Your task to perform on an android device: turn off location Image 0: 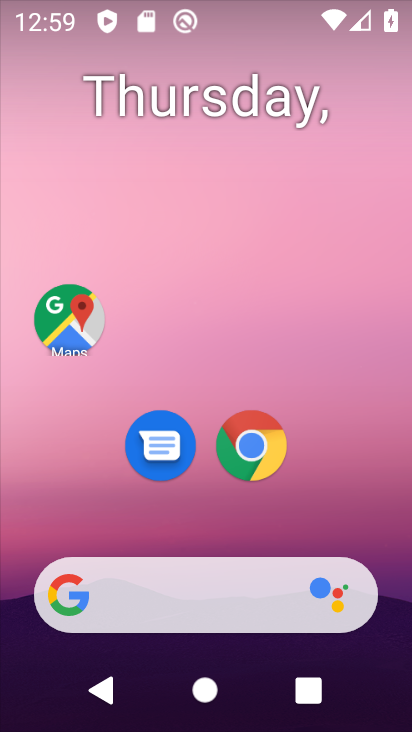
Step 0: drag from (221, 249) to (262, 157)
Your task to perform on an android device: turn off location Image 1: 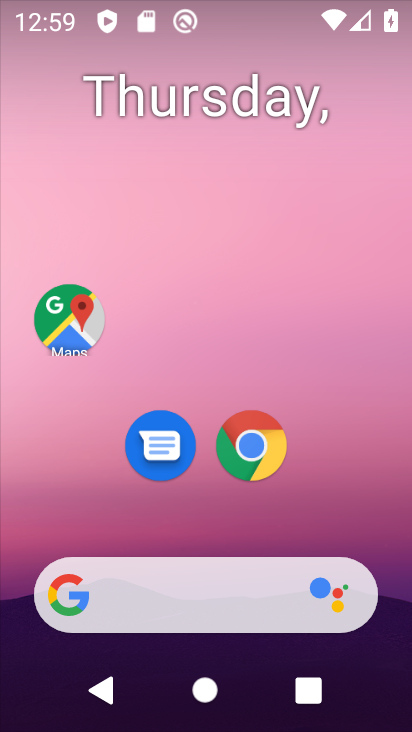
Step 1: drag from (25, 634) to (213, 251)
Your task to perform on an android device: turn off location Image 2: 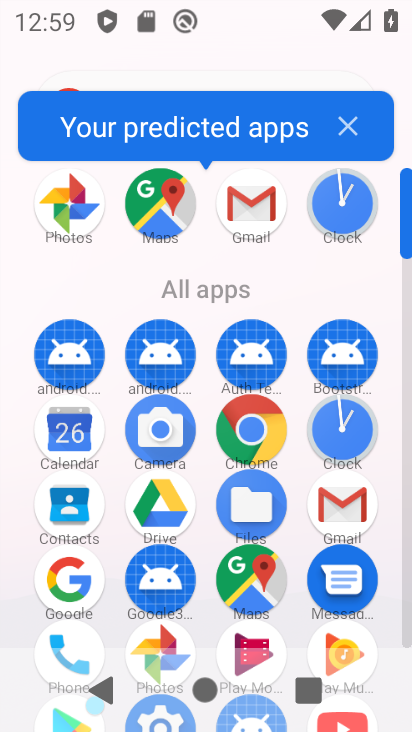
Step 2: drag from (16, 516) to (186, 182)
Your task to perform on an android device: turn off location Image 3: 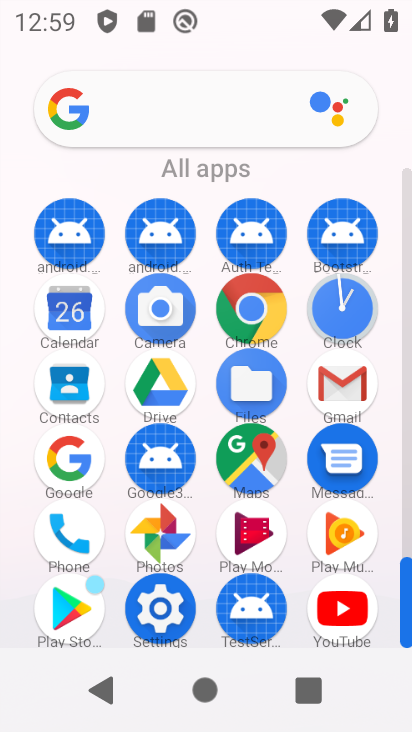
Step 3: click (166, 605)
Your task to perform on an android device: turn off location Image 4: 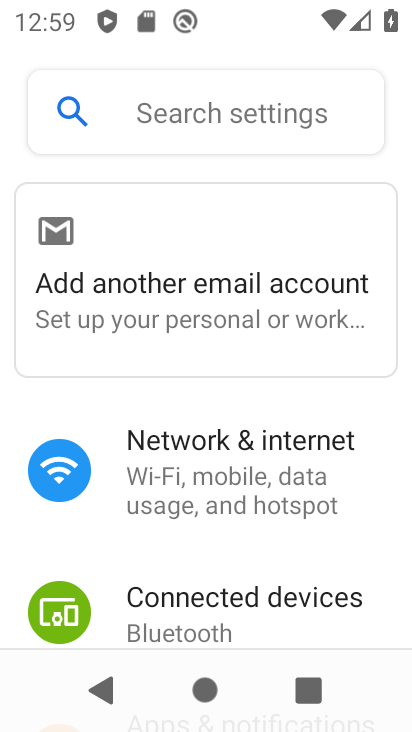
Step 4: drag from (2, 510) to (129, 219)
Your task to perform on an android device: turn off location Image 5: 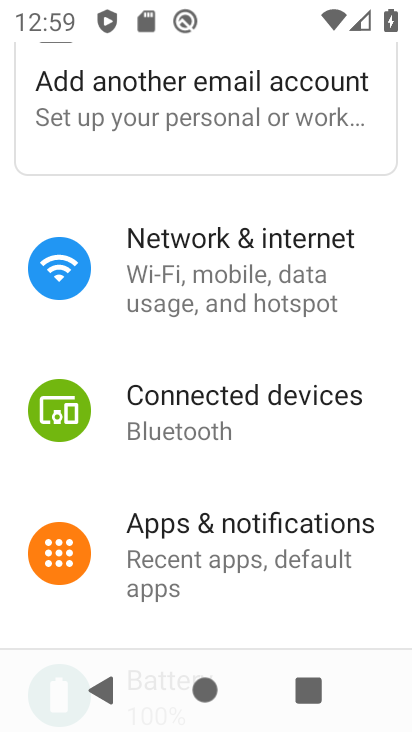
Step 5: drag from (16, 476) to (127, 215)
Your task to perform on an android device: turn off location Image 6: 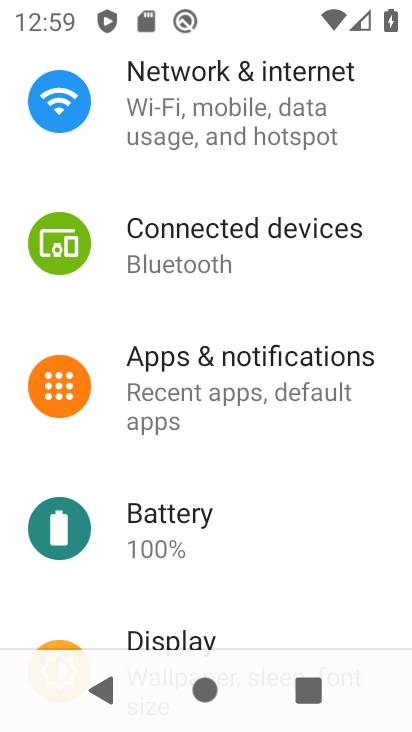
Step 6: drag from (38, 608) to (156, 258)
Your task to perform on an android device: turn off location Image 7: 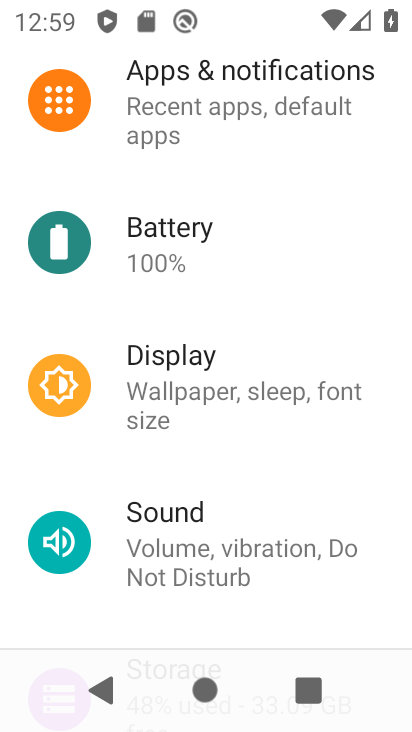
Step 7: drag from (40, 580) to (189, 199)
Your task to perform on an android device: turn off location Image 8: 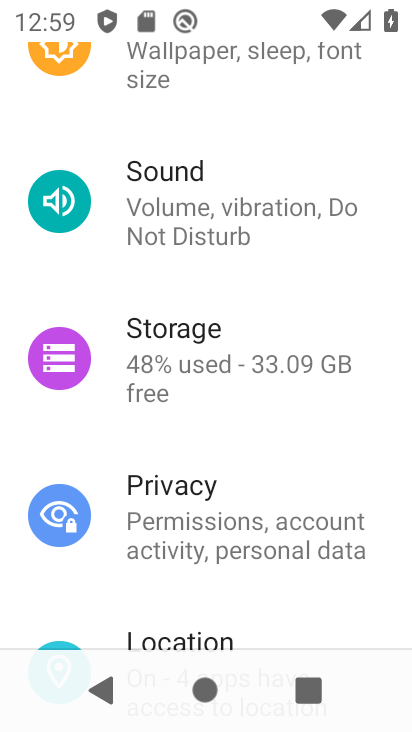
Step 8: drag from (51, 606) to (178, 256)
Your task to perform on an android device: turn off location Image 9: 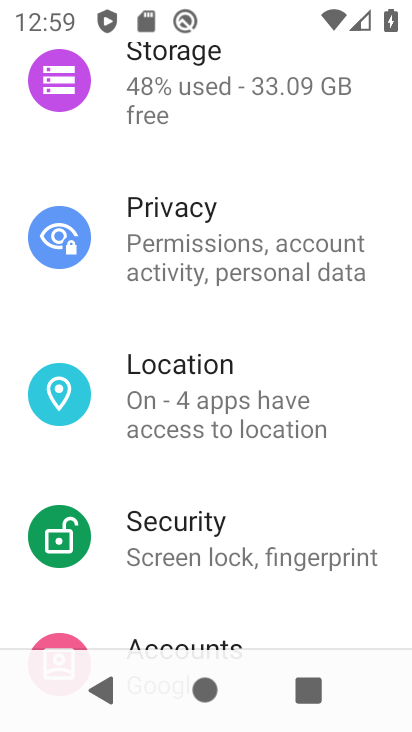
Step 9: click (202, 374)
Your task to perform on an android device: turn off location Image 10: 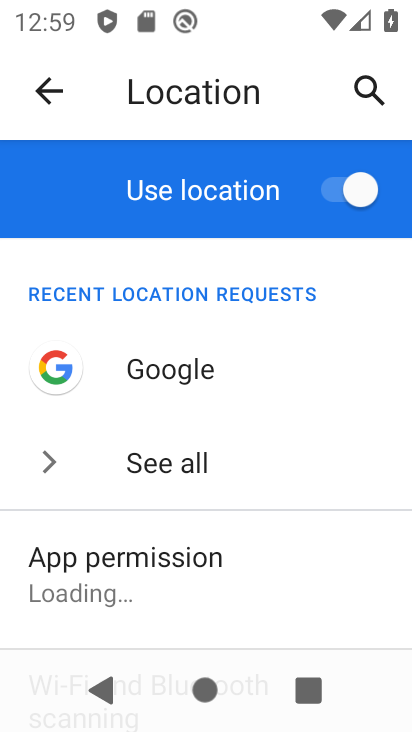
Step 10: click (353, 191)
Your task to perform on an android device: turn off location Image 11: 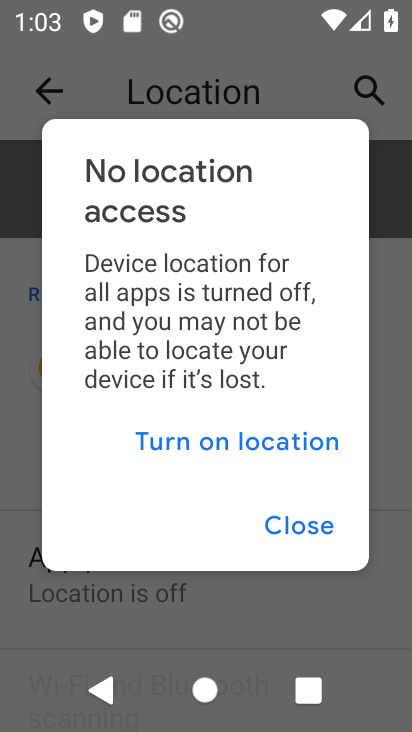
Step 11: click (295, 533)
Your task to perform on an android device: turn off location Image 12: 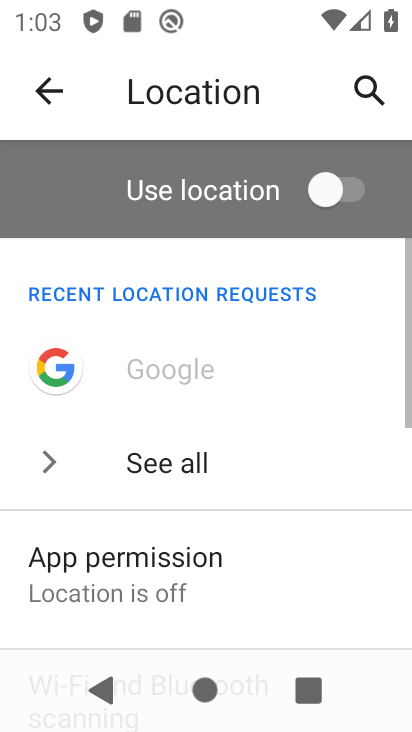
Step 12: task complete